Your task to perform on an android device: set default search engine in the chrome app Image 0: 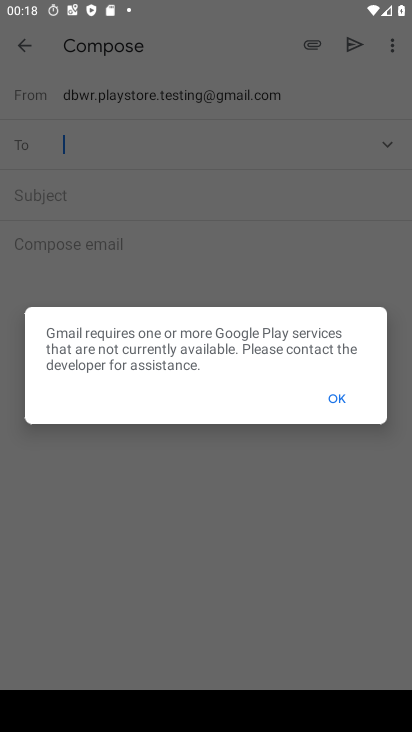
Step 0: press home button
Your task to perform on an android device: set default search engine in the chrome app Image 1: 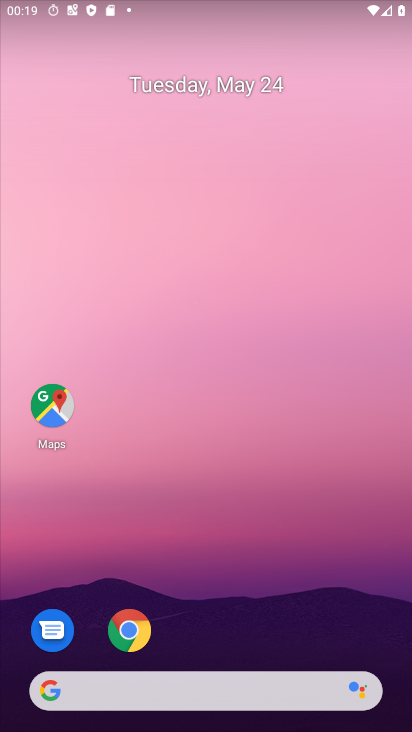
Step 1: click (138, 639)
Your task to perform on an android device: set default search engine in the chrome app Image 2: 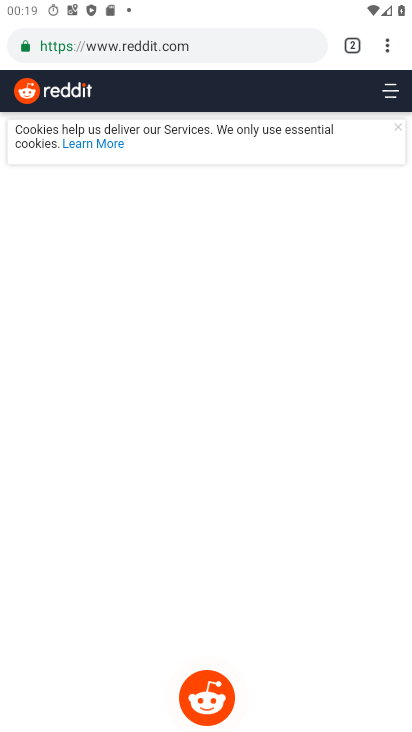
Step 2: click (387, 48)
Your task to perform on an android device: set default search engine in the chrome app Image 3: 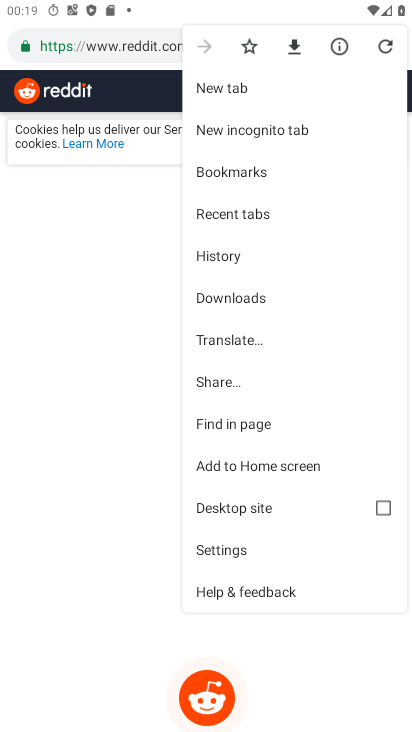
Step 3: click (227, 554)
Your task to perform on an android device: set default search engine in the chrome app Image 4: 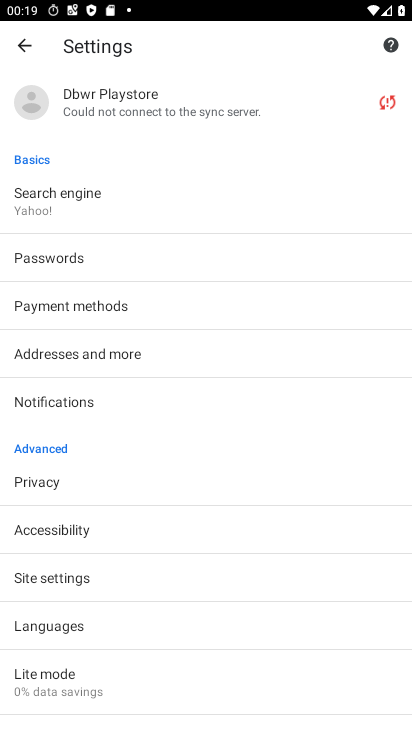
Step 4: click (41, 195)
Your task to perform on an android device: set default search engine in the chrome app Image 5: 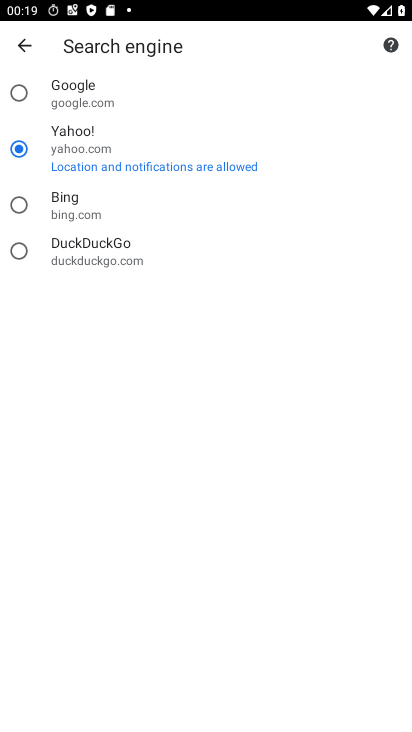
Step 5: click (22, 206)
Your task to perform on an android device: set default search engine in the chrome app Image 6: 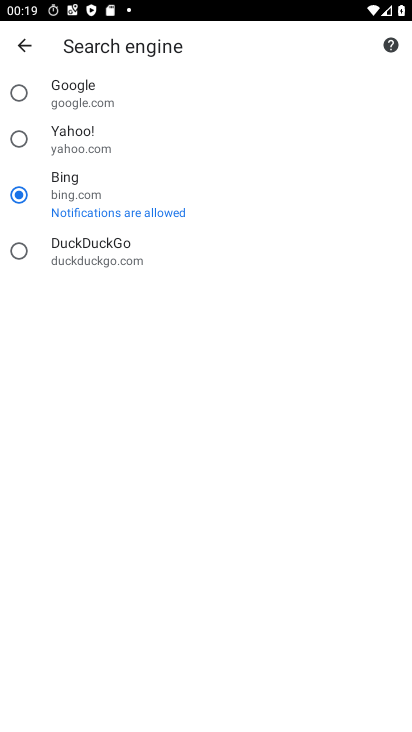
Step 6: task complete